Your task to perform on an android device: uninstall "Skype" Image 0: 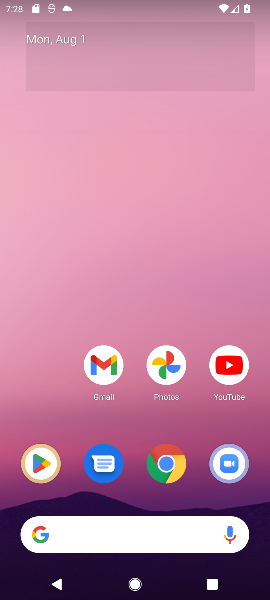
Step 0: click (46, 474)
Your task to perform on an android device: uninstall "Skype" Image 1: 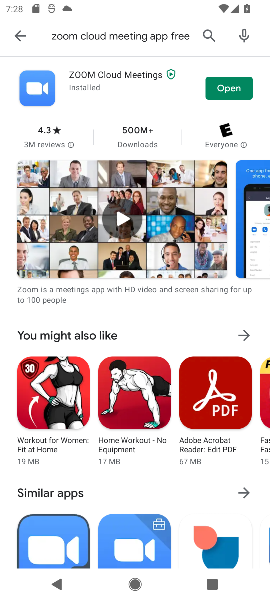
Step 1: click (201, 45)
Your task to perform on an android device: uninstall "Skype" Image 2: 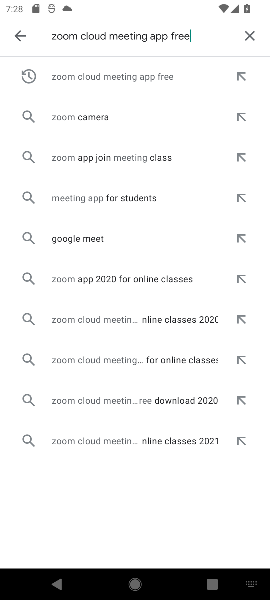
Step 2: click (239, 38)
Your task to perform on an android device: uninstall "Skype" Image 3: 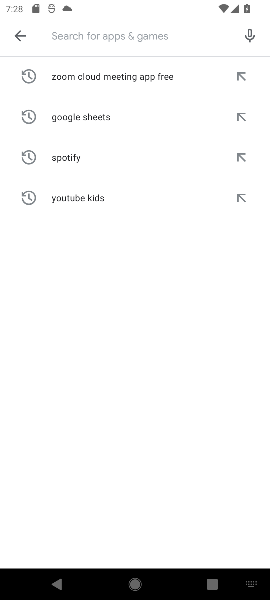
Step 3: type "skype"
Your task to perform on an android device: uninstall "Skype" Image 4: 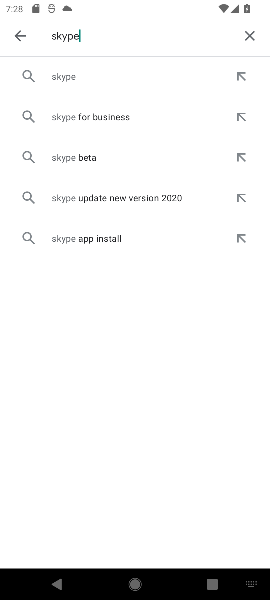
Step 4: click (237, 77)
Your task to perform on an android device: uninstall "Skype" Image 5: 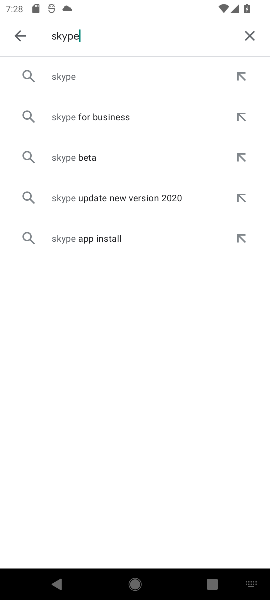
Step 5: click (94, 85)
Your task to perform on an android device: uninstall "Skype" Image 6: 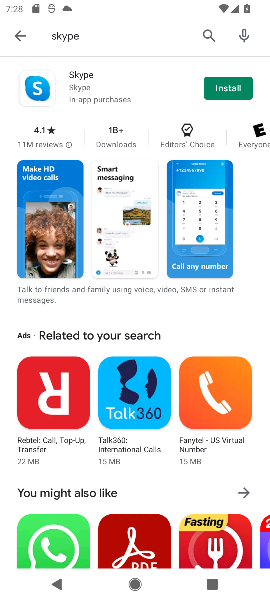
Step 6: click (226, 81)
Your task to perform on an android device: uninstall "Skype" Image 7: 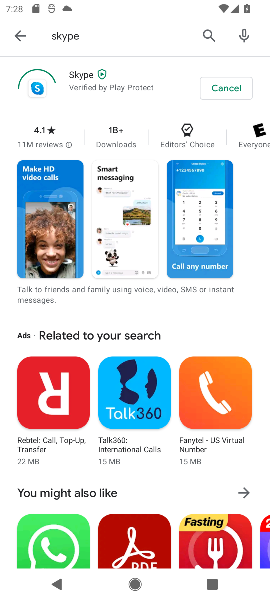
Step 7: task complete